Your task to perform on an android device: Show me popular videos on Youtube Image 0: 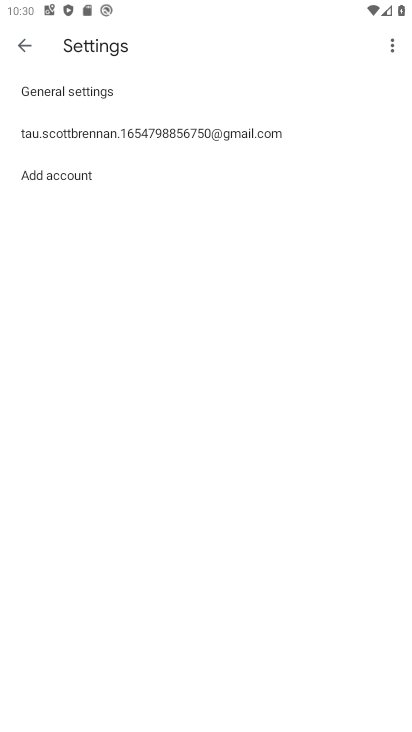
Step 0: press home button
Your task to perform on an android device: Show me popular videos on Youtube Image 1: 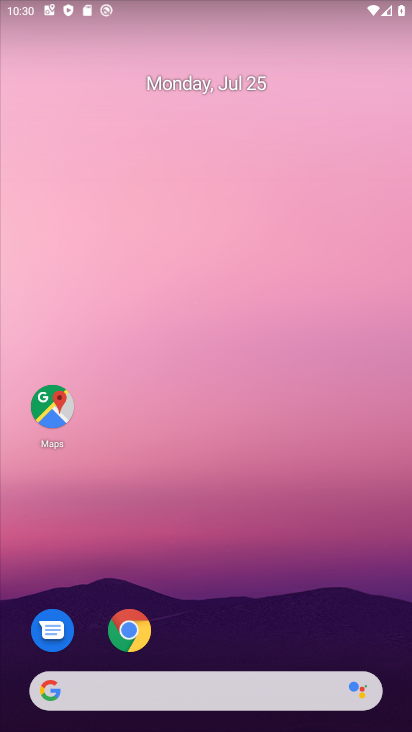
Step 1: drag from (358, 616) to (336, 116)
Your task to perform on an android device: Show me popular videos on Youtube Image 2: 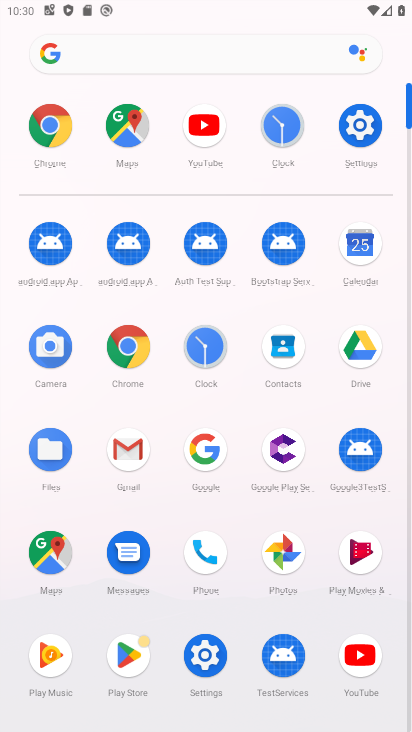
Step 2: click (365, 657)
Your task to perform on an android device: Show me popular videos on Youtube Image 3: 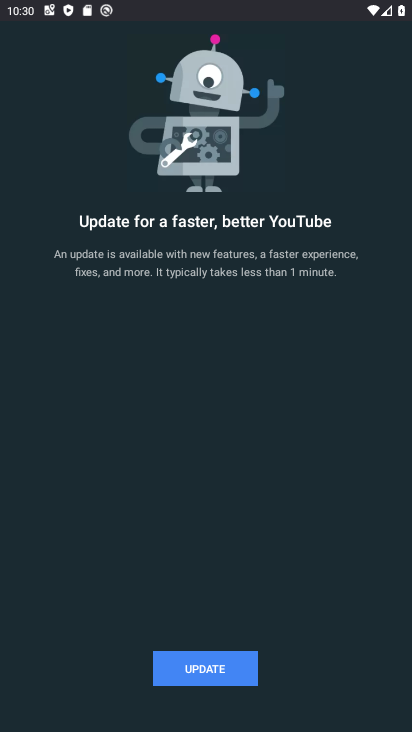
Step 3: click (229, 671)
Your task to perform on an android device: Show me popular videos on Youtube Image 4: 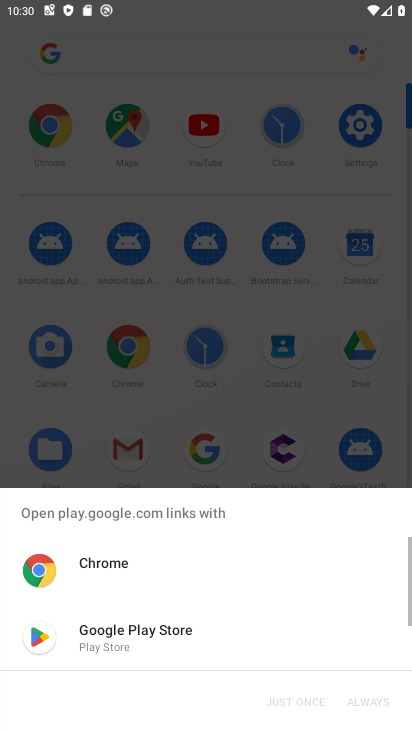
Step 4: click (129, 614)
Your task to perform on an android device: Show me popular videos on Youtube Image 5: 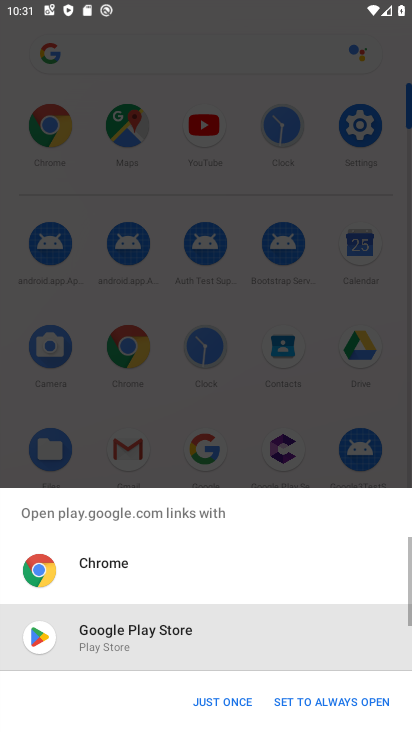
Step 5: click (223, 691)
Your task to perform on an android device: Show me popular videos on Youtube Image 6: 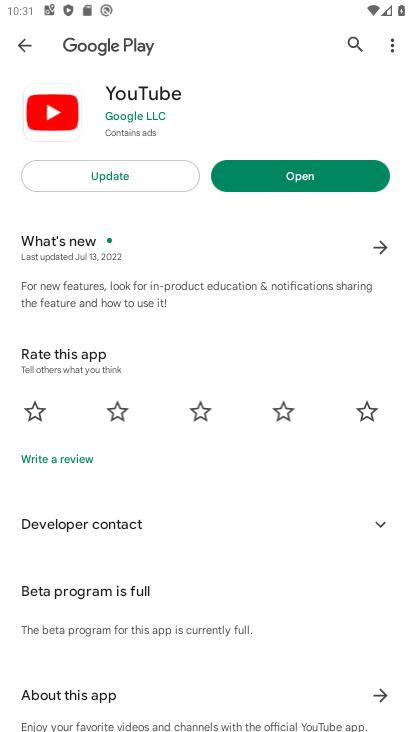
Step 6: click (164, 180)
Your task to perform on an android device: Show me popular videos on Youtube Image 7: 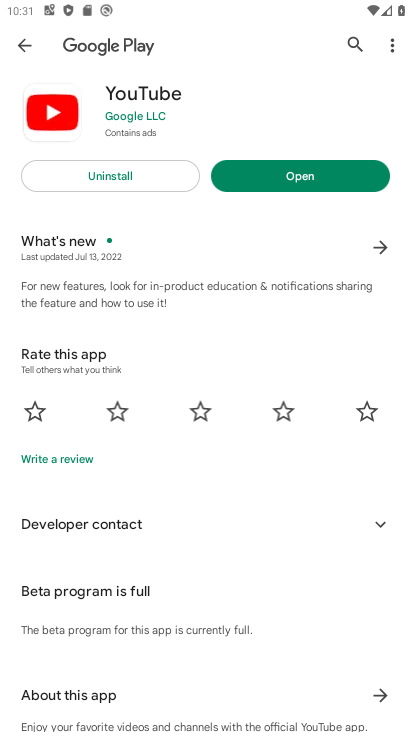
Step 7: click (335, 176)
Your task to perform on an android device: Show me popular videos on Youtube Image 8: 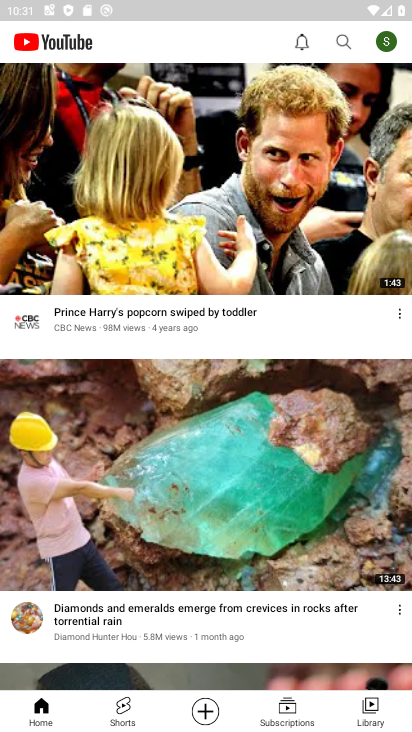
Step 8: task complete